Your task to perform on an android device: turn on showing notifications on the lock screen Image 0: 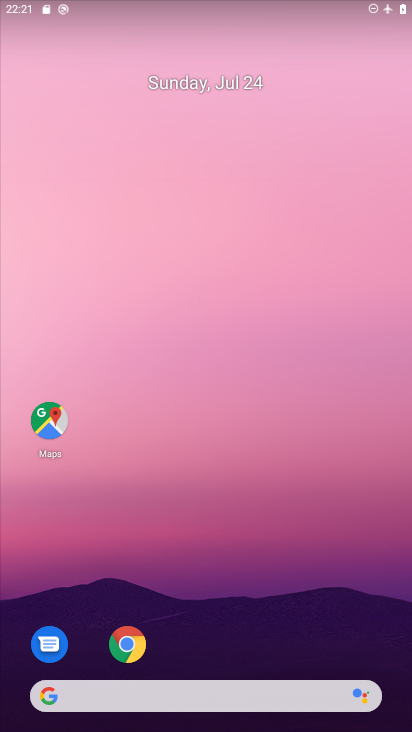
Step 0: drag from (380, 649) to (345, 96)
Your task to perform on an android device: turn on showing notifications on the lock screen Image 1: 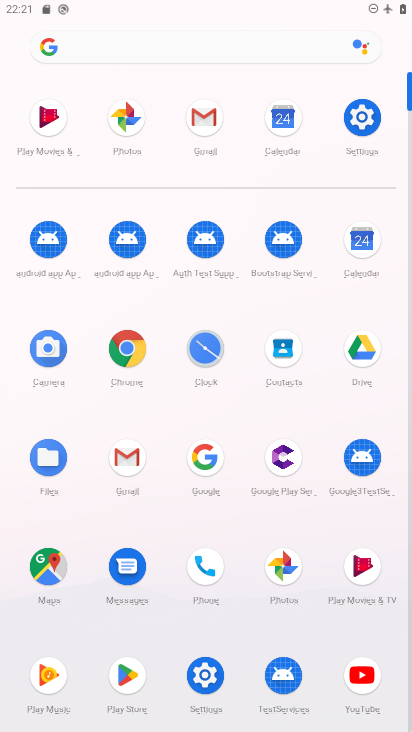
Step 1: click (205, 680)
Your task to perform on an android device: turn on showing notifications on the lock screen Image 2: 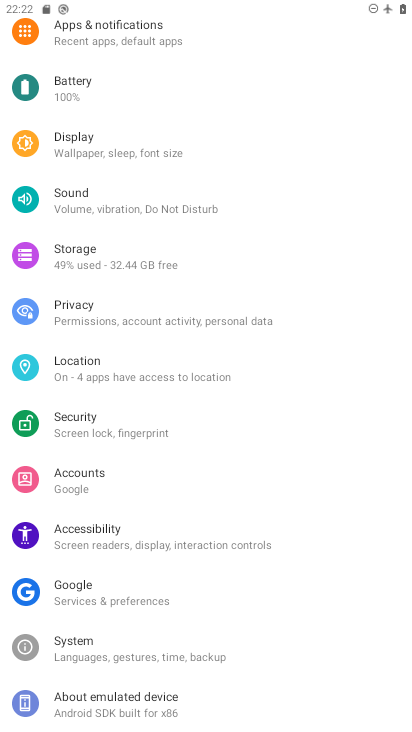
Step 2: click (112, 32)
Your task to perform on an android device: turn on showing notifications on the lock screen Image 3: 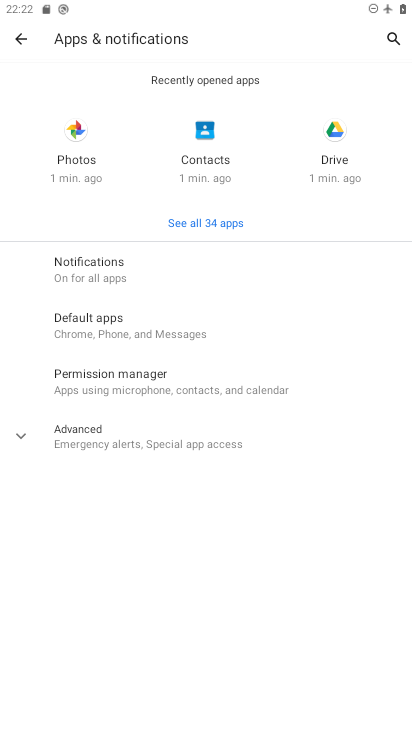
Step 3: click (90, 262)
Your task to perform on an android device: turn on showing notifications on the lock screen Image 4: 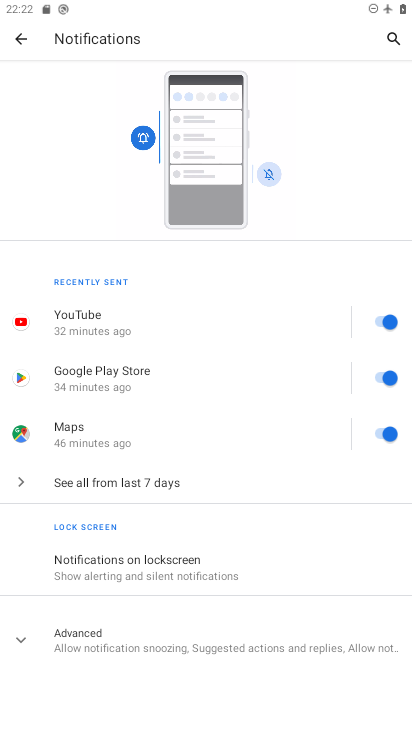
Step 4: click (111, 564)
Your task to perform on an android device: turn on showing notifications on the lock screen Image 5: 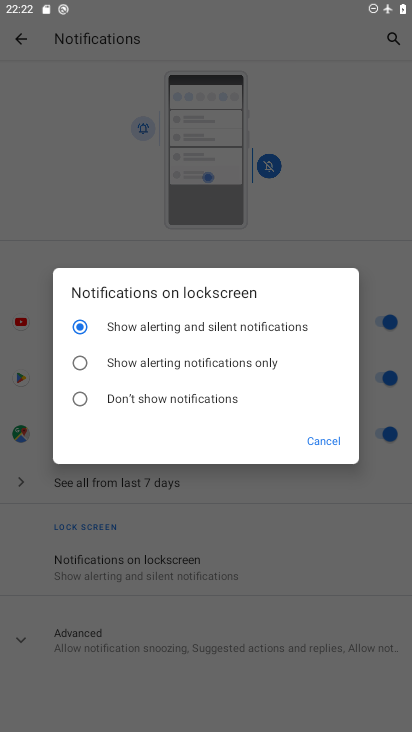
Step 5: task complete